Your task to perform on an android device: toggle javascript in the chrome app Image 0: 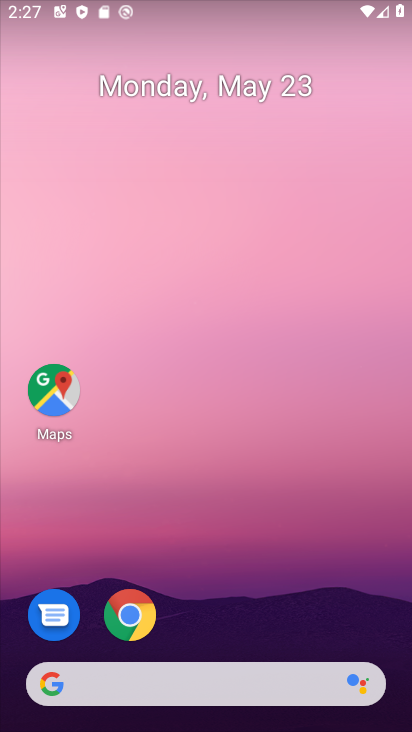
Step 0: drag from (383, 614) to (380, 206)
Your task to perform on an android device: toggle javascript in the chrome app Image 1: 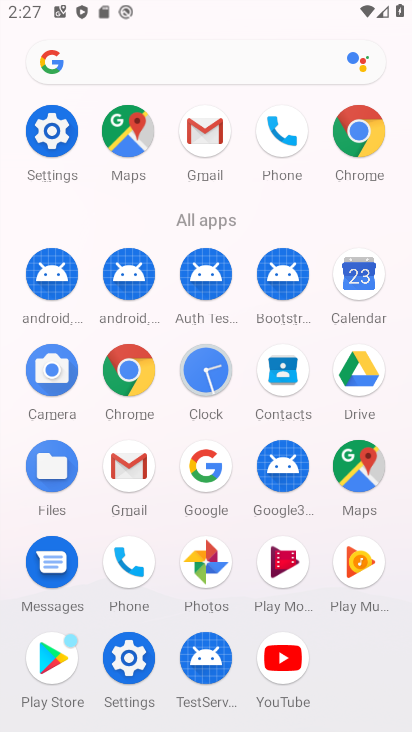
Step 1: click (138, 390)
Your task to perform on an android device: toggle javascript in the chrome app Image 2: 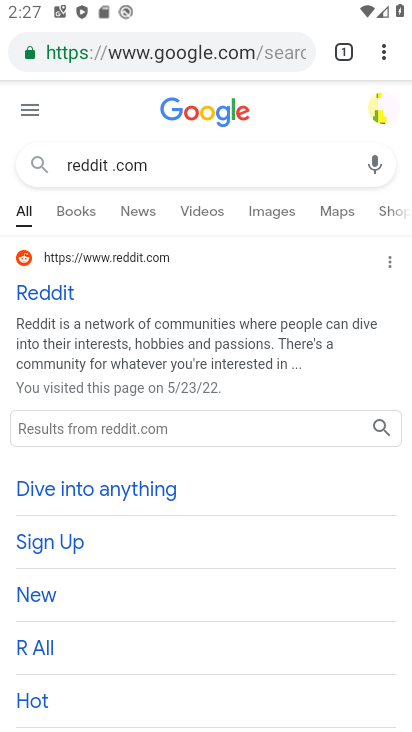
Step 2: click (387, 56)
Your task to perform on an android device: toggle javascript in the chrome app Image 3: 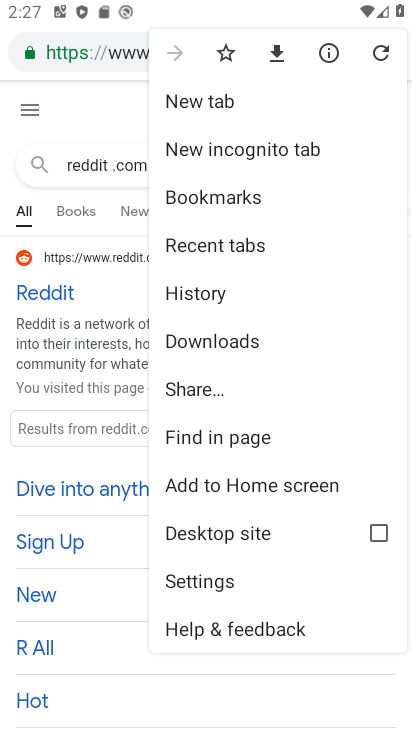
Step 3: click (237, 581)
Your task to perform on an android device: toggle javascript in the chrome app Image 4: 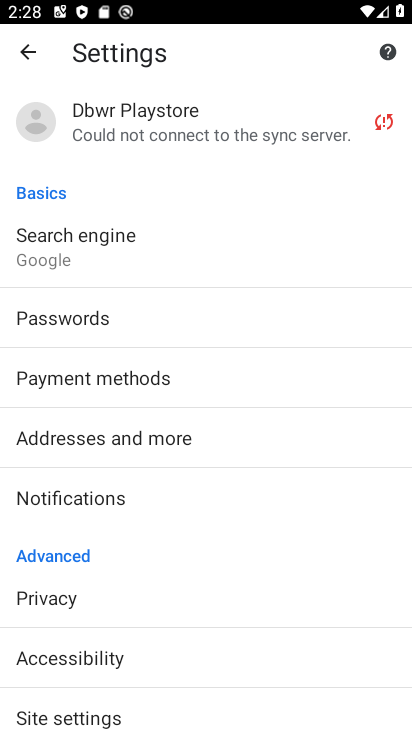
Step 4: drag from (306, 594) to (300, 439)
Your task to perform on an android device: toggle javascript in the chrome app Image 5: 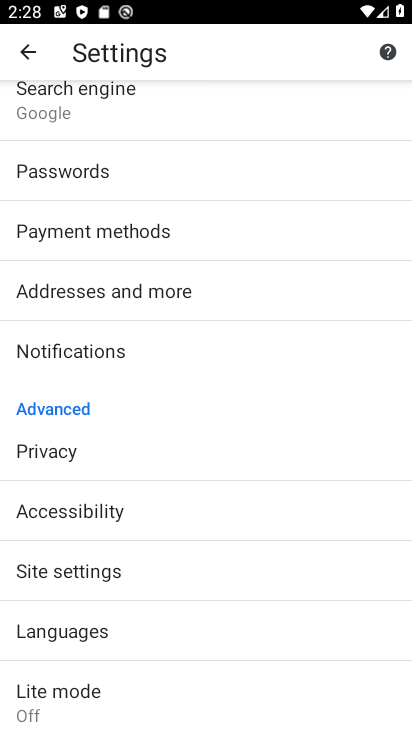
Step 5: click (261, 566)
Your task to perform on an android device: toggle javascript in the chrome app Image 6: 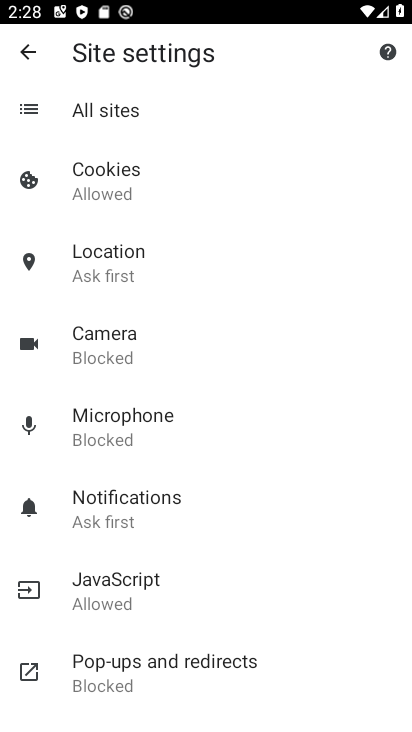
Step 6: click (169, 591)
Your task to perform on an android device: toggle javascript in the chrome app Image 7: 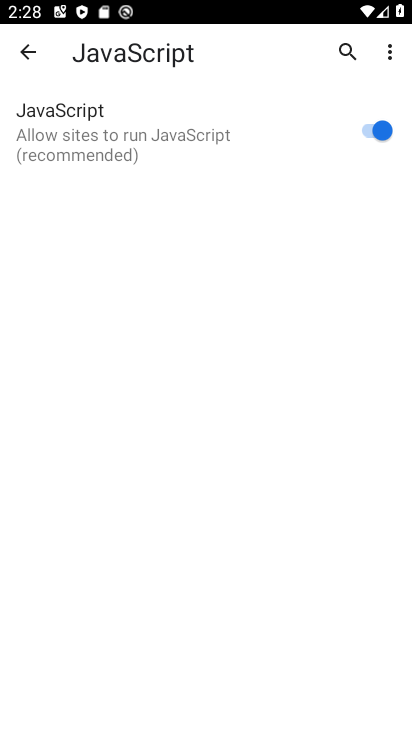
Step 7: click (378, 135)
Your task to perform on an android device: toggle javascript in the chrome app Image 8: 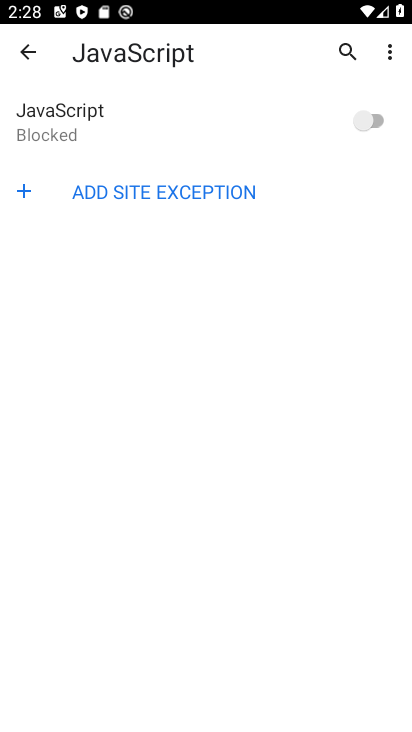
Step 8: task complete